Your task to perform on an android device: Go to sound settings Image 0: 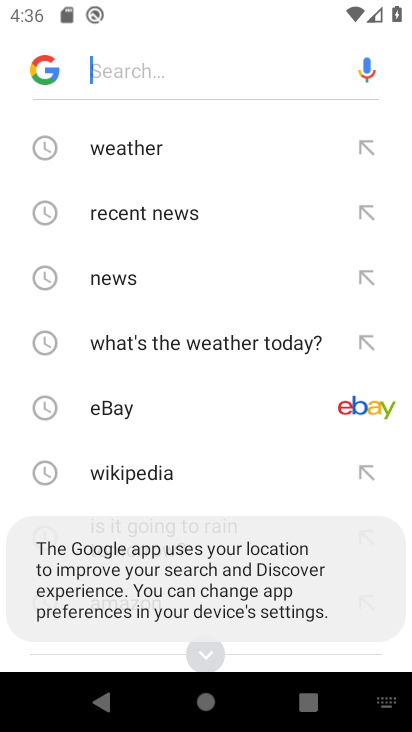
Step 0: press home button
Your task to perform on an android device: Go to sound settings Image 1: 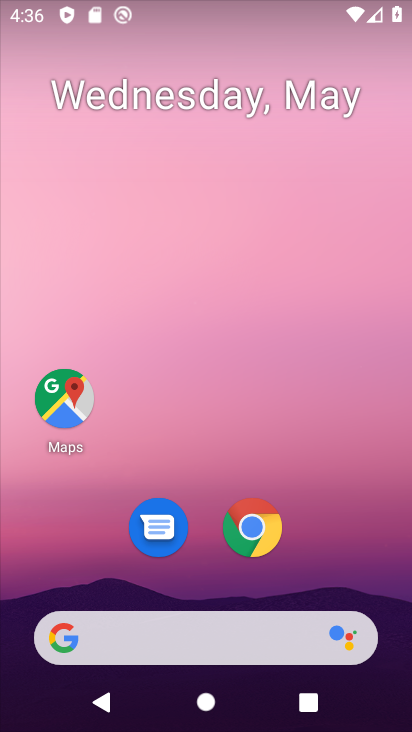
Step 1: drag from (301, 574) to (266, 140)
Your task to perform on an android device: Go to sound settings Image 2: 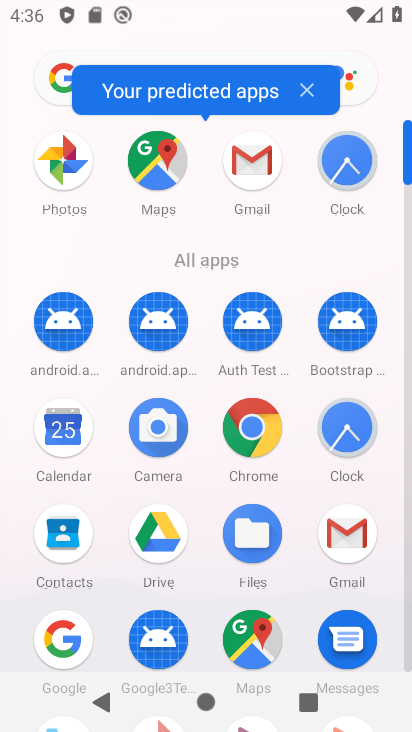
Step 2: drag from (290, 573) to (273, 213)
Your task to perform on an android device: Go to sound settings Image 3: 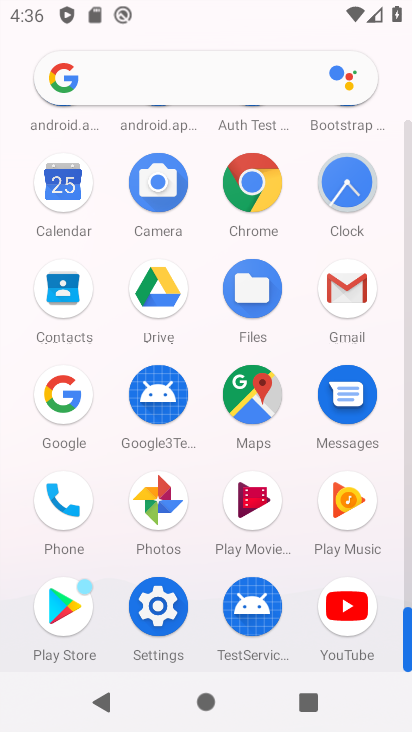
Step 3: click (153, 603)
Your task to perform on an android device: Go to sound settings Image 4: 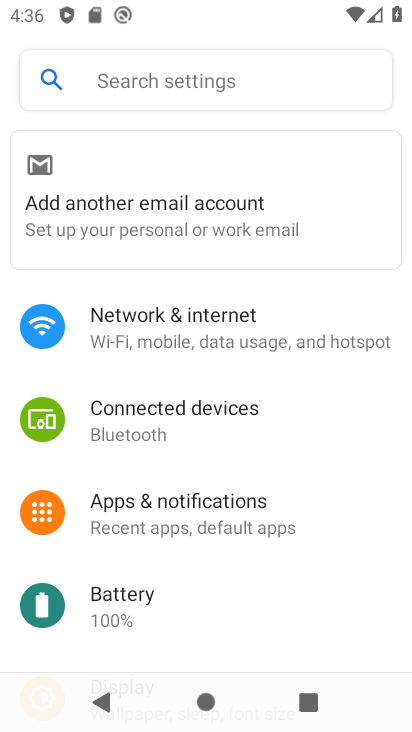
Step 4: drag from (176, 557) to (226, 166)
Your task to perform on an android device: Go to sound settings Image 5: 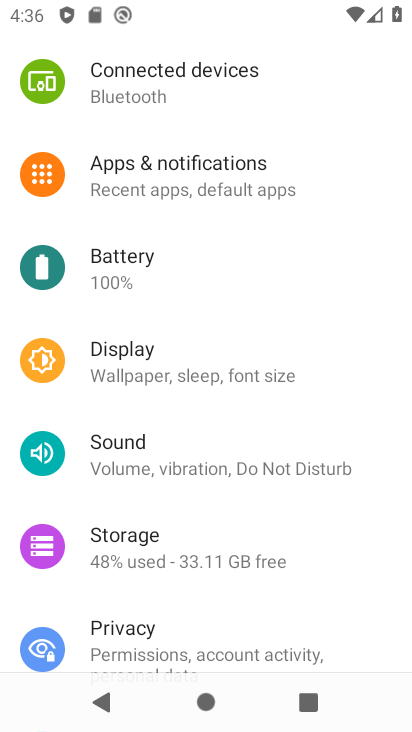
Step 5: click (133, 474)
Your task to perform on an android device: Go to sound settings Image 6: 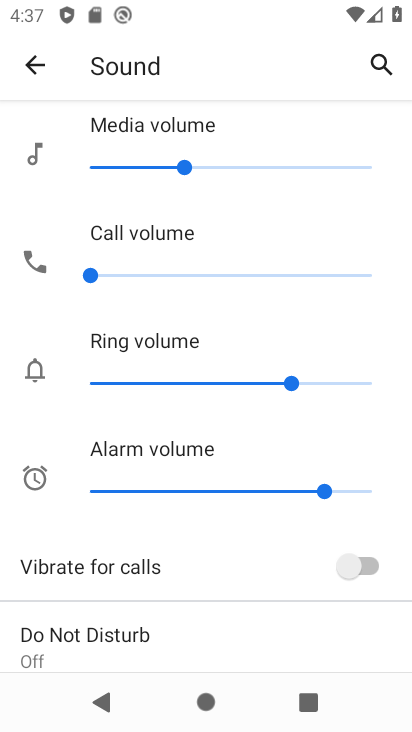
Step 6: press home button
Your task to perform on an android device: Go to sound settings Image 7: 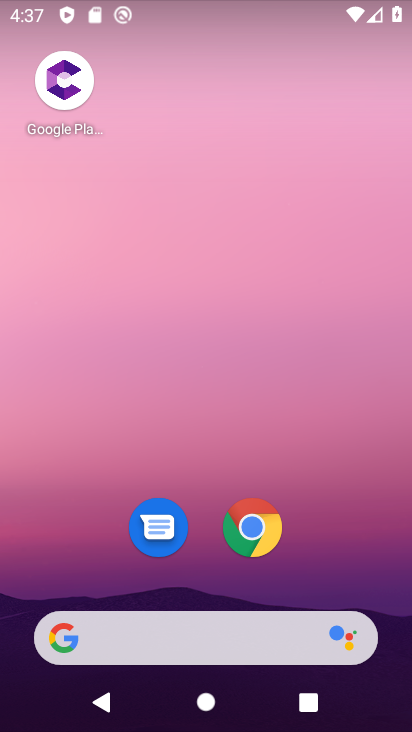
Step 7: drag from (299, 565) to (306, 82)
Your task to perform on an android device: Go to sound settings Image 8: 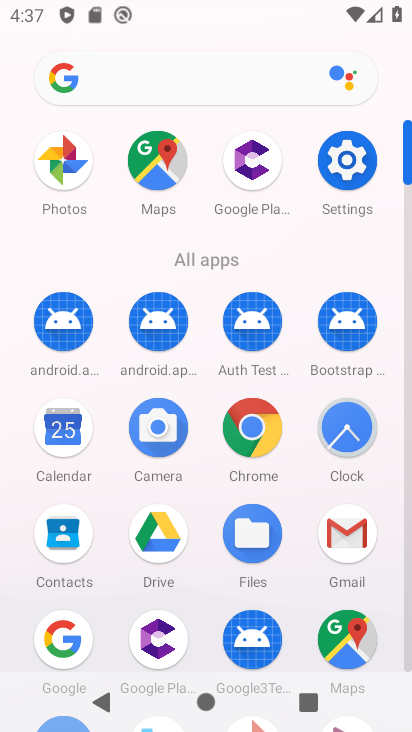
Step 8: click (343, 172)
Your task to perform on an android device: Go to sound settings Image 9: 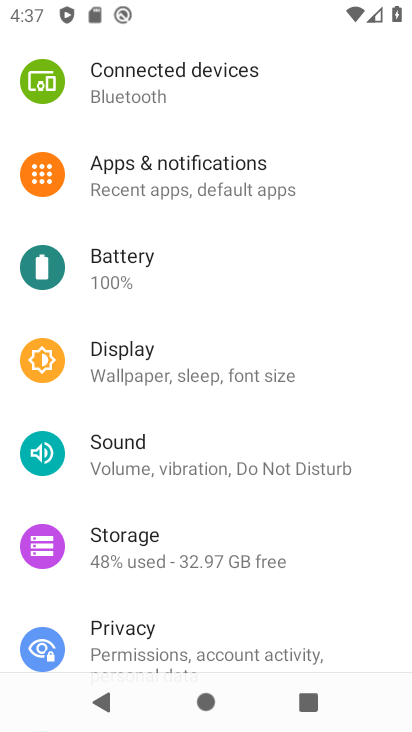
Step 9: click (156, 454)
Your task to perform on an android device: Go to sound settings Image 10: 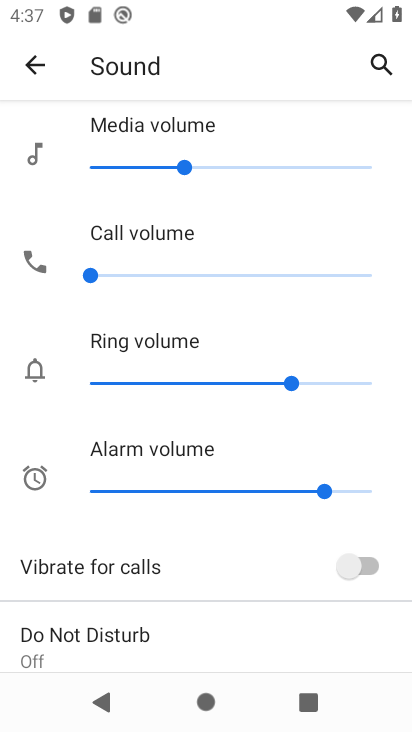
Step 10: task complete